Your task to perform on an android device: Go to settings Image 0: 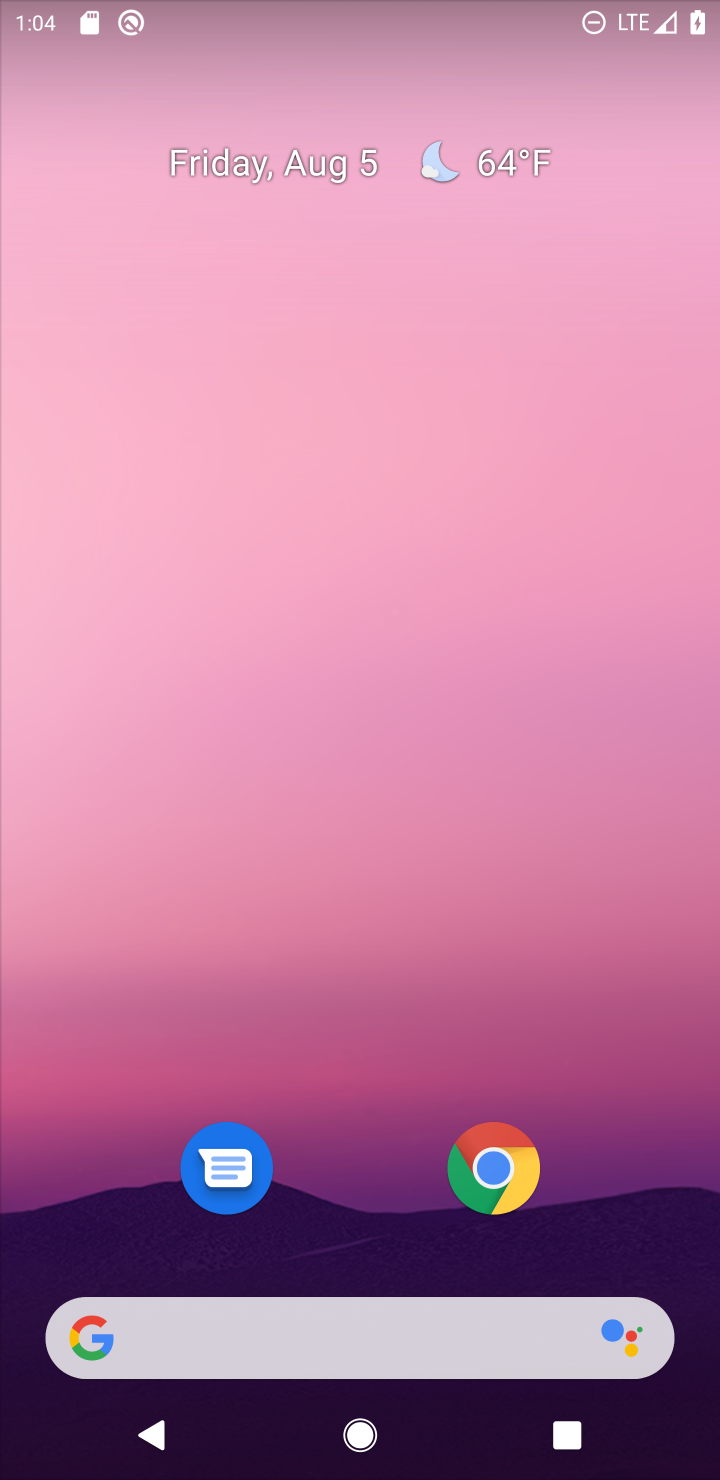
Step 0: drag from (405, 223) to (318, 1416)
Your task to perform on an android device: Go to settings Image 1: 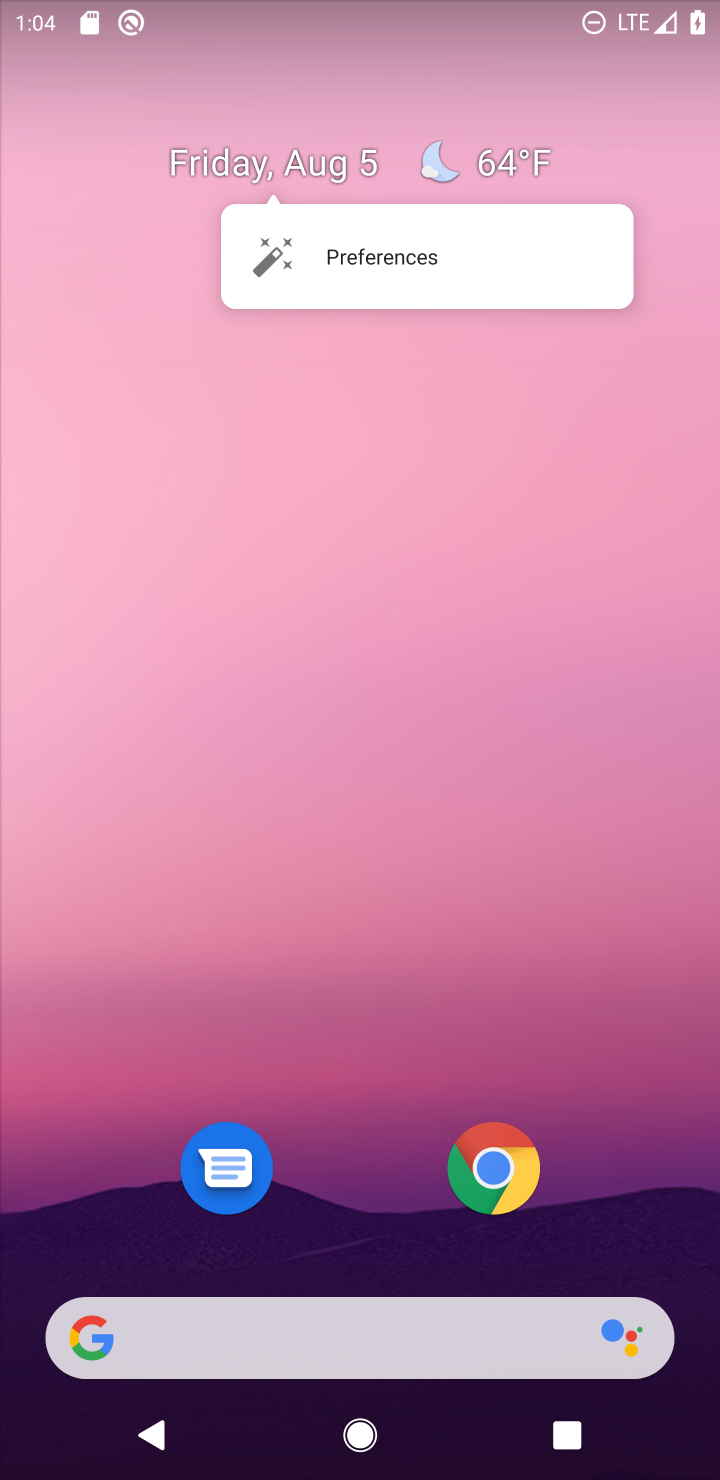
Step 1: click (487, 907)
Your task to perform on an android device: Go to settings Image 2: 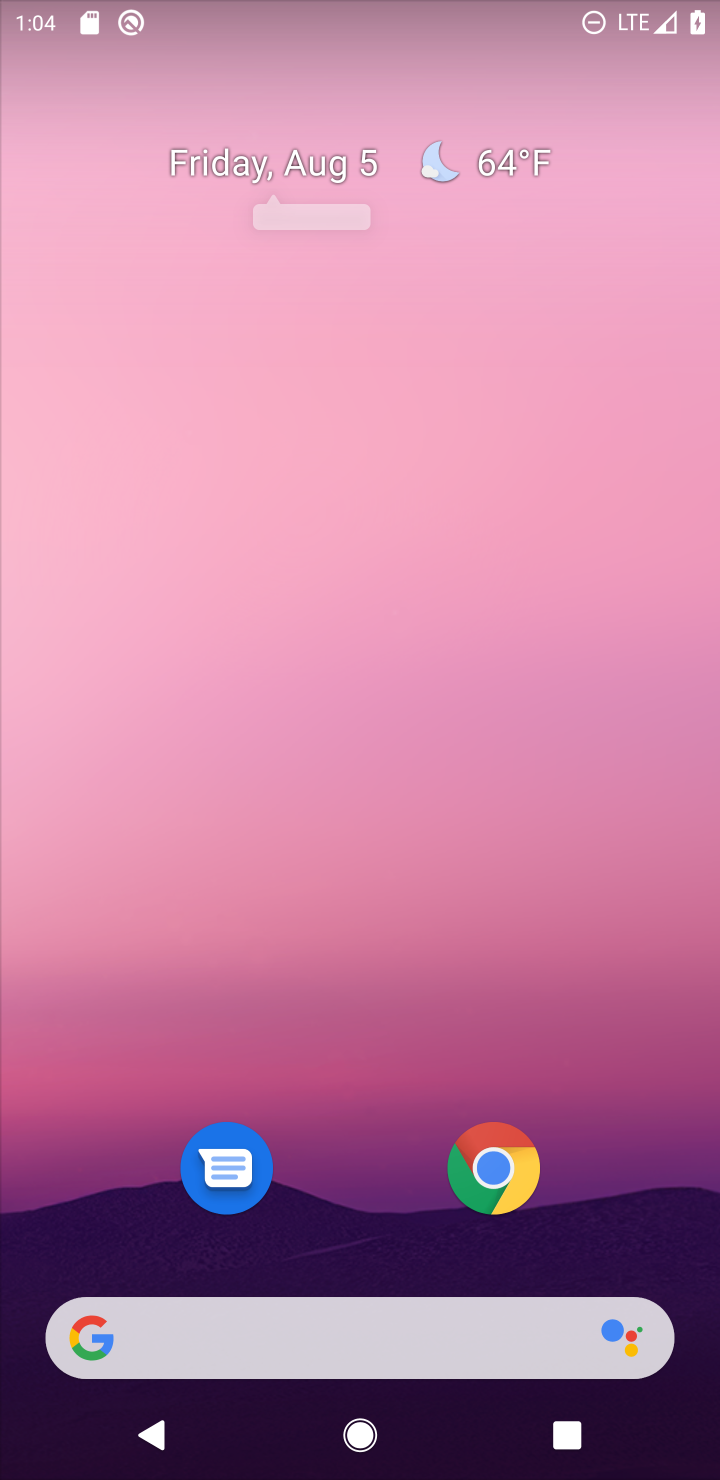
Step 2: drag from (634, 1238) to (501, 66)
Your task to perform on an android device: Go to settings Image 3: 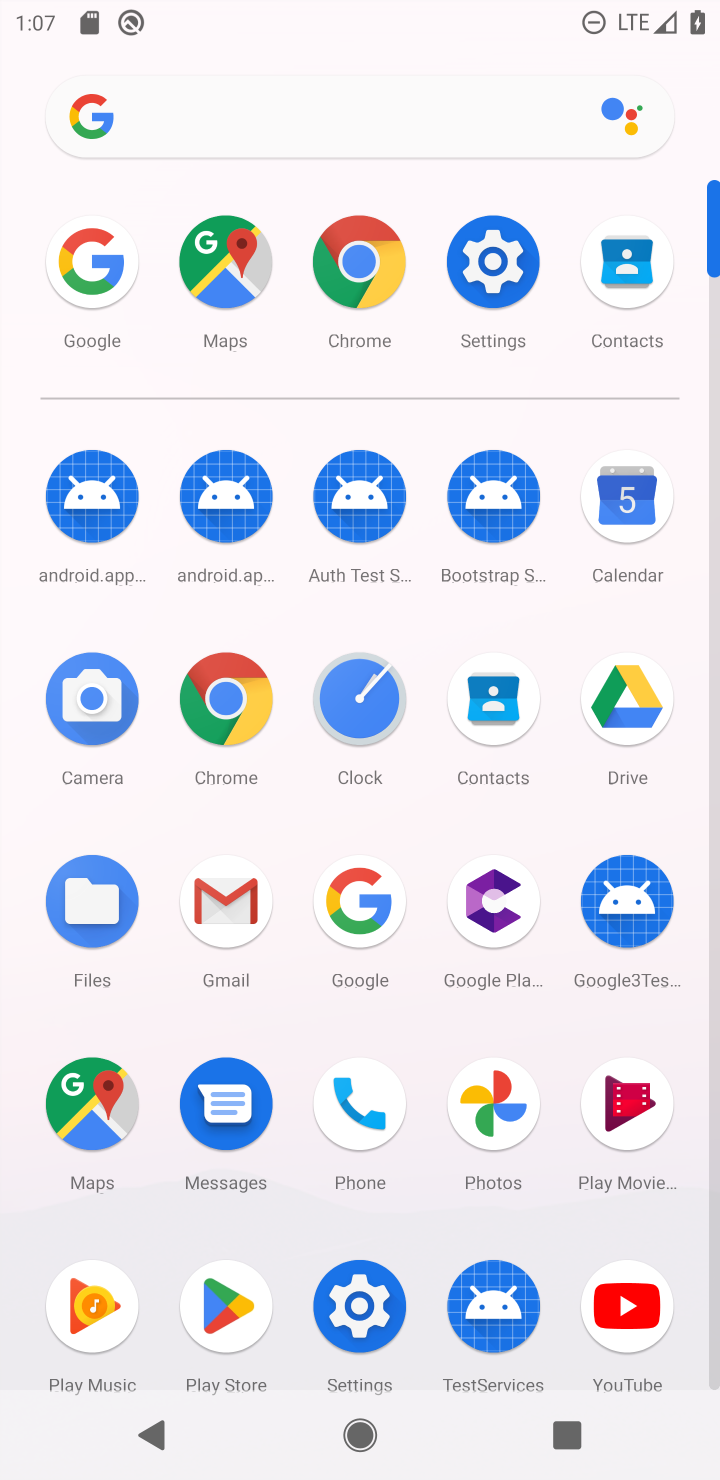
Step 3: click (393, 1277)
Your task to perform on an android device: Go to settings Image 4: 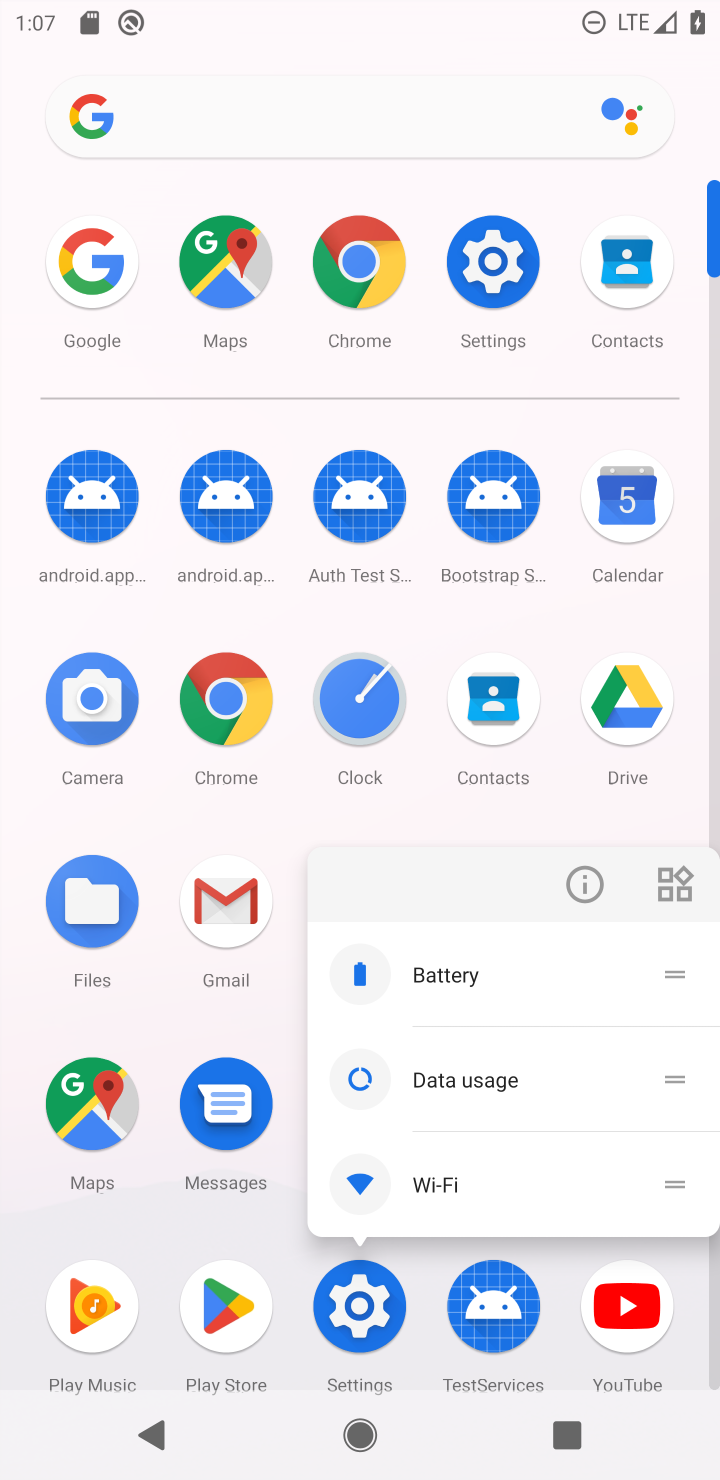
Step 4: click (356, 1305)
Your task to perform on an android device: Go to settings Image 5: 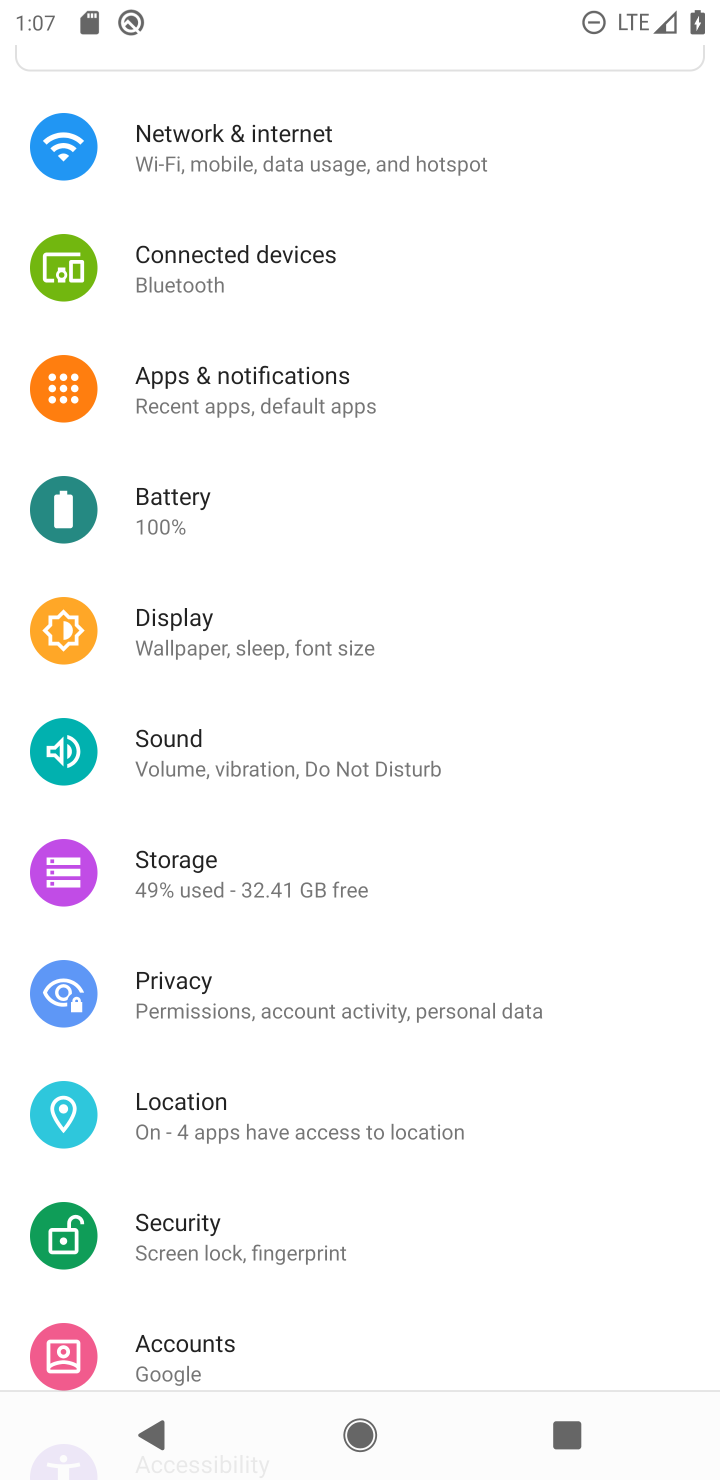
Step 5: task complete